Your task to perform on an android device: Search for pizza restaurants on Maps Image 0: 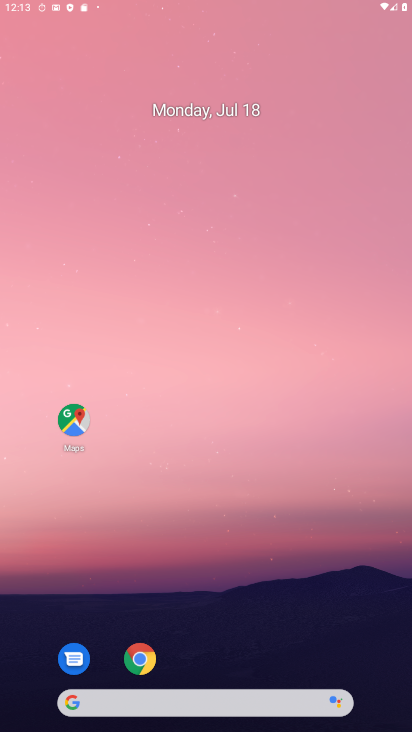
Step 0: click (132, 659)
Your task to perform on an android device: Search for pizza restaurants on Maps Image 1: 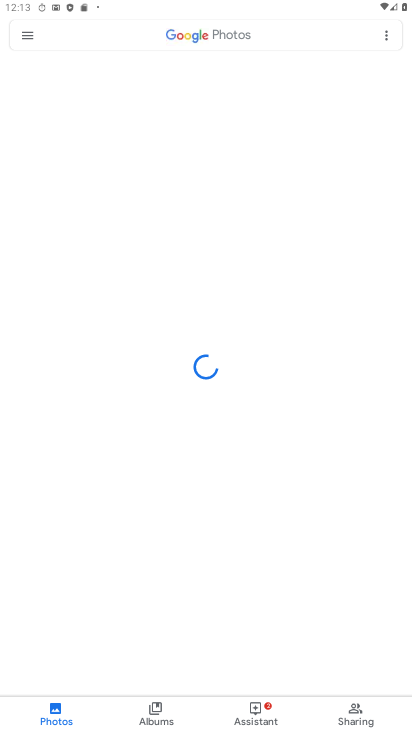
Step 1: press home button
Your task to perform on an android device: Search for pizza restaurants on Maps Image 2: 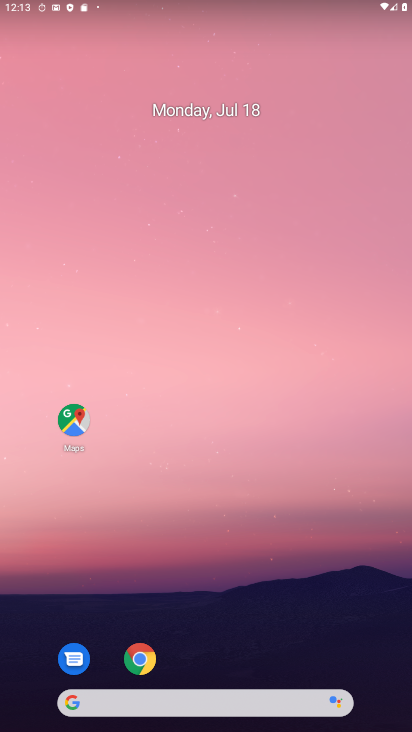
Step 2: click (67, 411)
Your task to perform on an android device: Search for pizza restaurants on Maps Image 3: 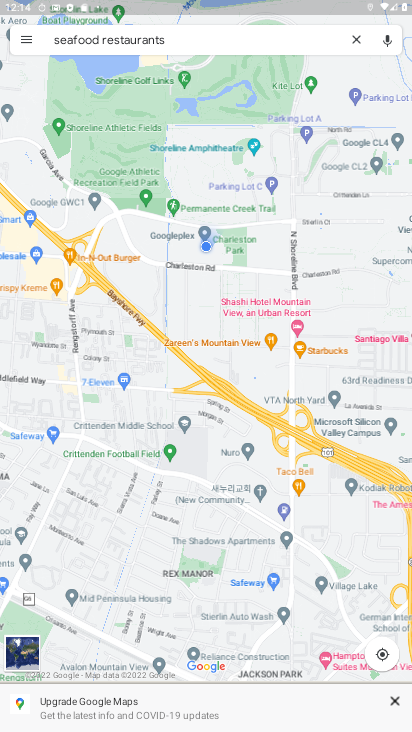
Step 3: click (75, 41)
Your task to perform on an android device: Search for pizza restaurants on Maps Image 4: 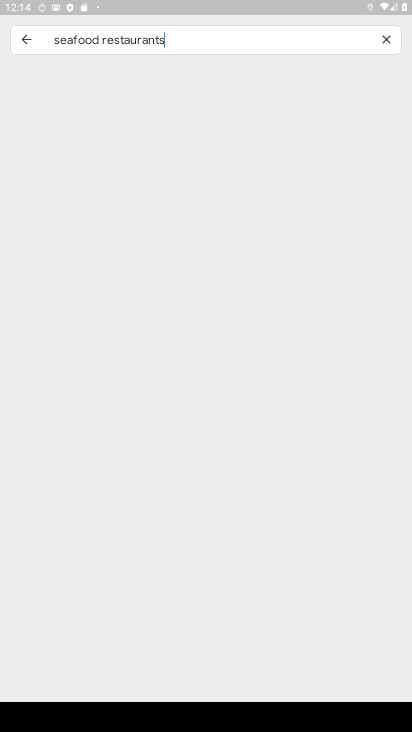
Step 4: click (75, 41)
Your task to perform on an android device: Search for pizza restaurants on Maps Image 5: 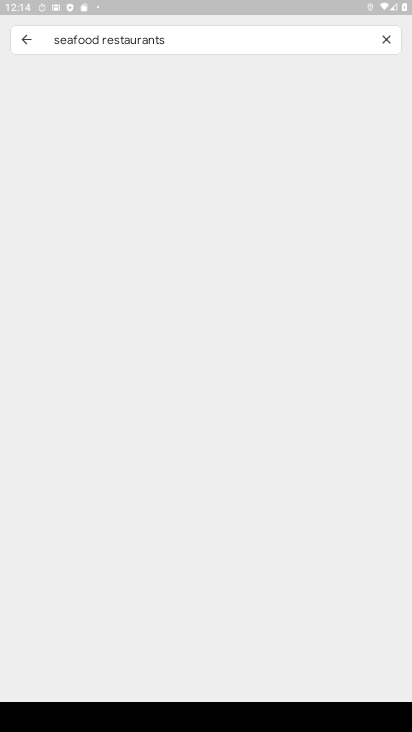
Step 5: click (75, 41)
Your task to perform on an android device: Search for pizza restaurants on Maps Image 6: 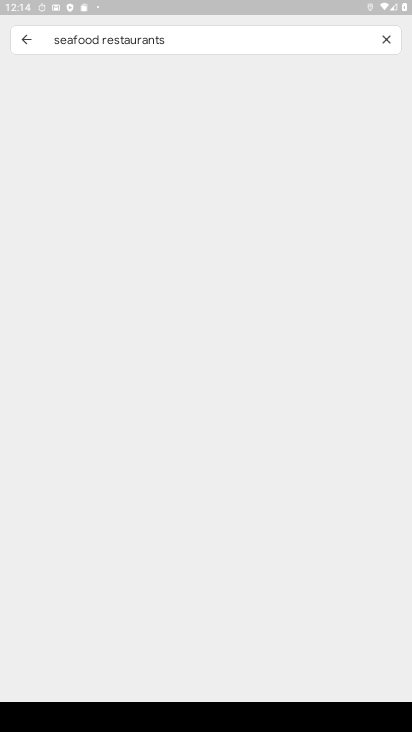
Step 6: click (75, 41)
Your task to perform on an android device: Search for pizza restaurants on Maps Image 7: 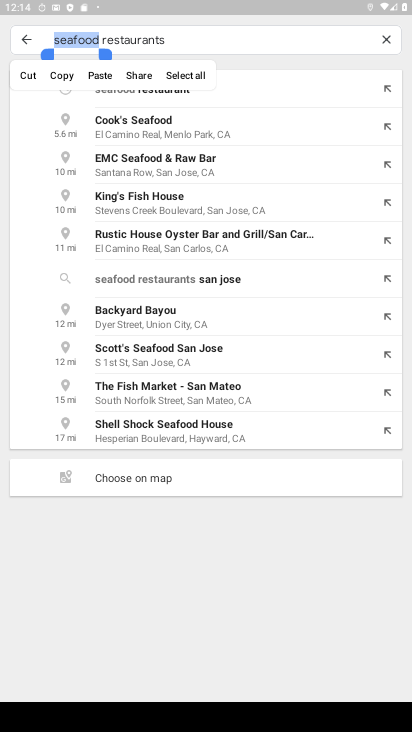
Step 7: type "Pizza"
Your task to perform on an android device: Search for pizza restaurants on Maps Image 8: 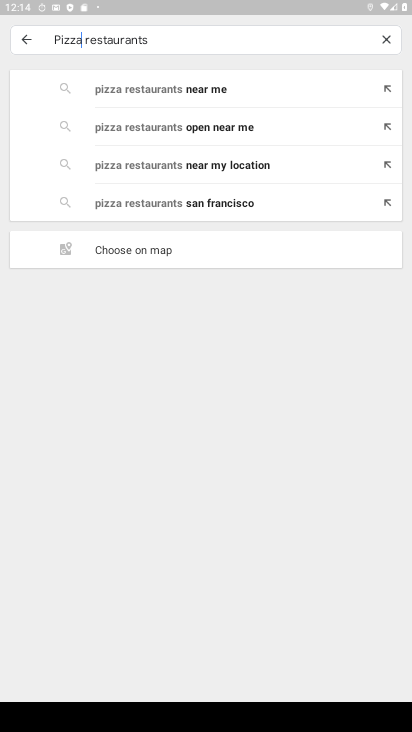
Step 8: click (151, 88)
Your task to perform on an android device: Search for pizza restaurants on Maps Image 9: 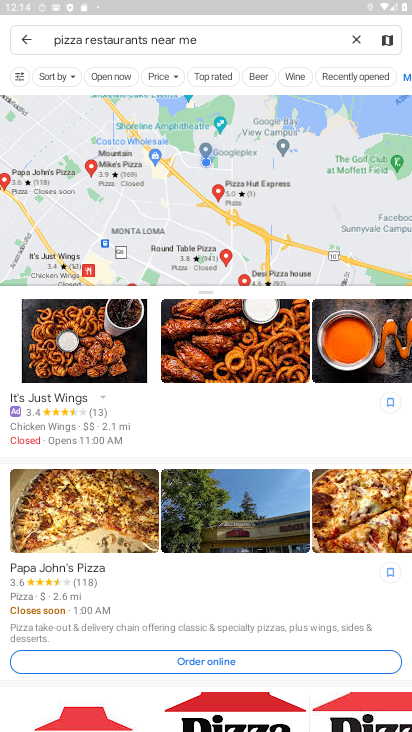
Step 9: task complete